Your task to perform on an android device: What's the weather going to be this weekend? Image 0: 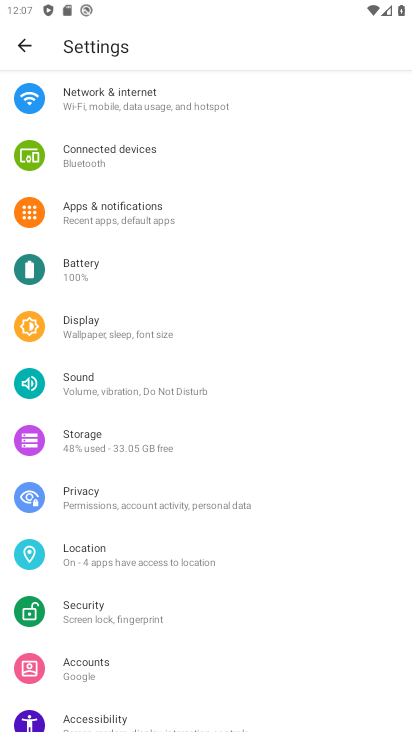
Step 0: press home button
Your task to perform on an android device: What's the weather going to be this weekend? Image 1: 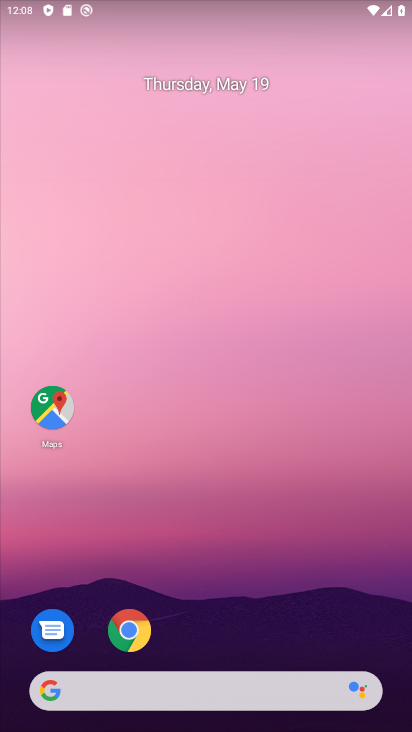
Step 1: click (130, 631)
Your task to perform on an android device: What's the weather going to be this weekend? Image 2: 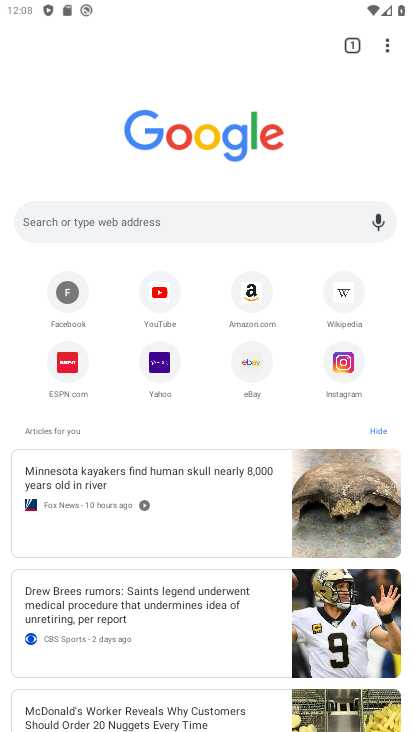
Step 2: click (156, 220)
Your task to perform on an android device: What's the weather going to be this weekend? Image 3: 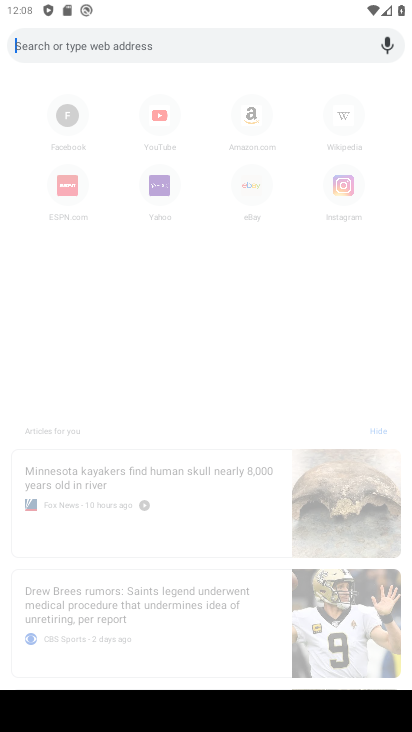
Step 3: type "What's the weather going to be this weekend?"
Your task to perform on an android device: What's the weather going to be this weekend? Image 4: 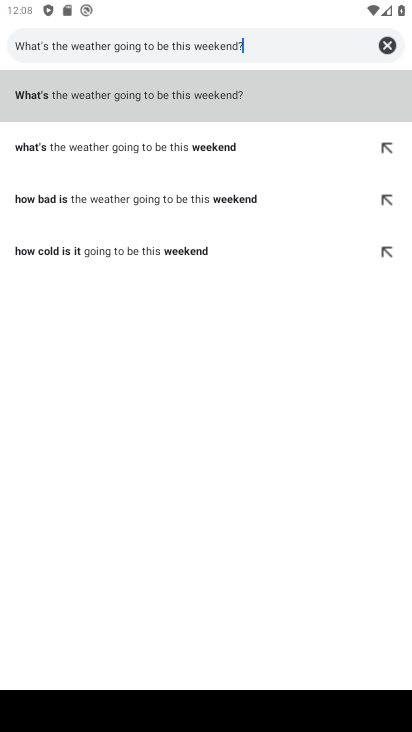
Step 4: click (283, 91)
Your task to perform on an android device: What's the weather going to be this weekend? Image 5: 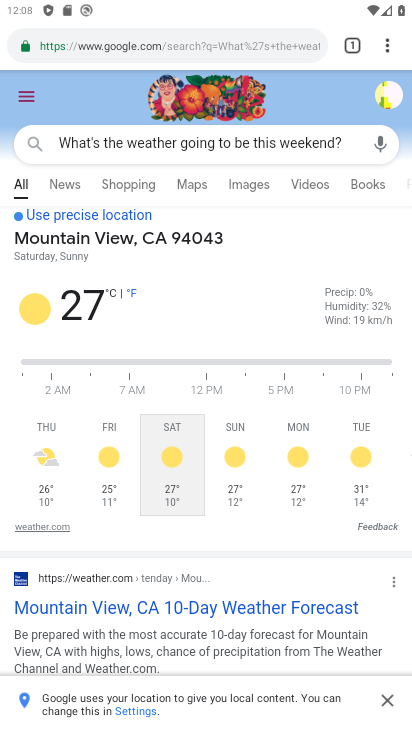
Step 5: task complete